Your task to perform on an android device: turn on notifications settings in the gmail app Image 0: 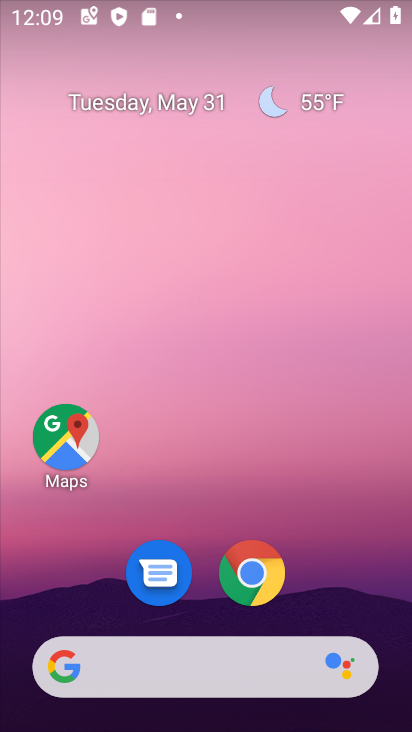
Step 0: drag from (196, 610) to (250, 0)
Your task to perform on an android device: turn on notifications settings in the gmail app Image 1: 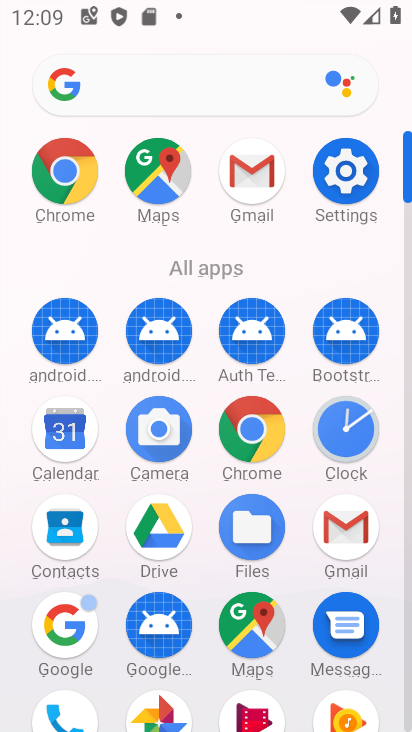
Step 1: click (335, 539)
Your task to perform on an android device: turn on notifications settings in the gmail app Image 2: 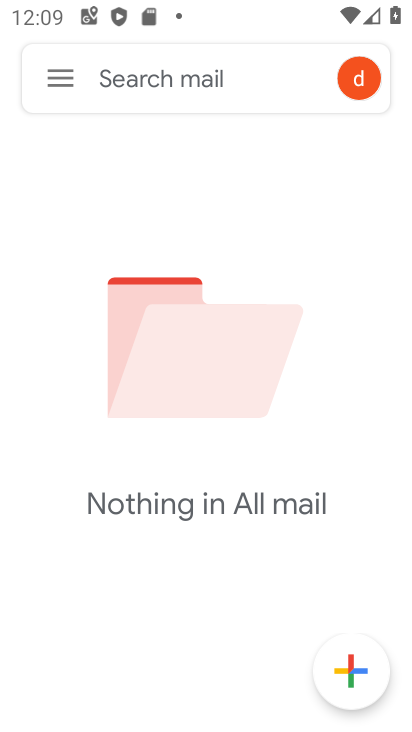
Step 2: click (64, 77)
Your task to perform on an android device: turn on notifications settings in the gmail app Image 3: 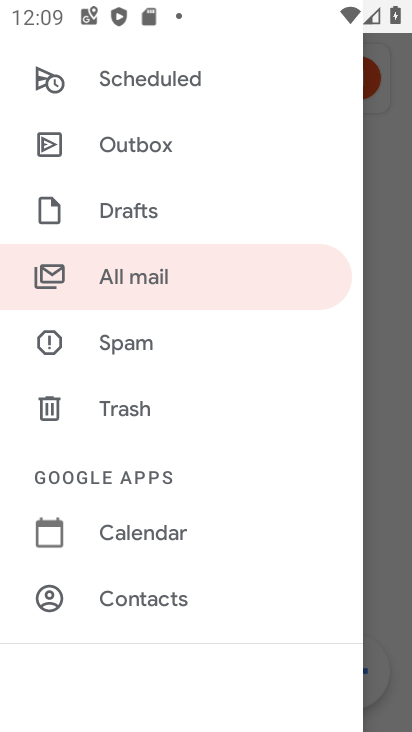
Step 3: drag from (169, 590) to (191, 204)
Your task to perform on an android device: turn on notifications settings in the gmail app Image 4: 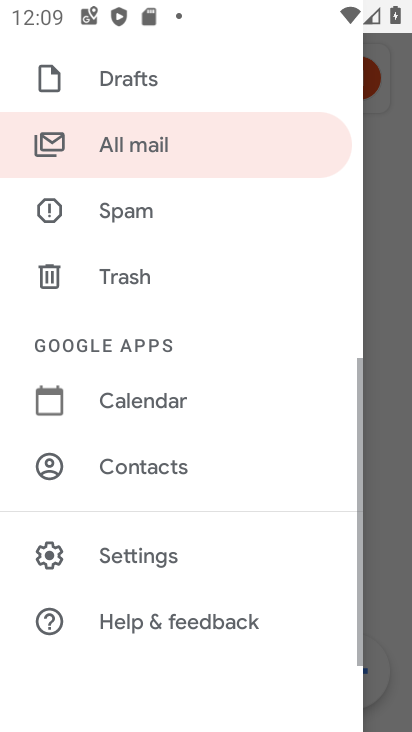
Step 4: click (135, 557)
Your task to perform on an android device: turn on notifications settings in the gmail app Image 5: 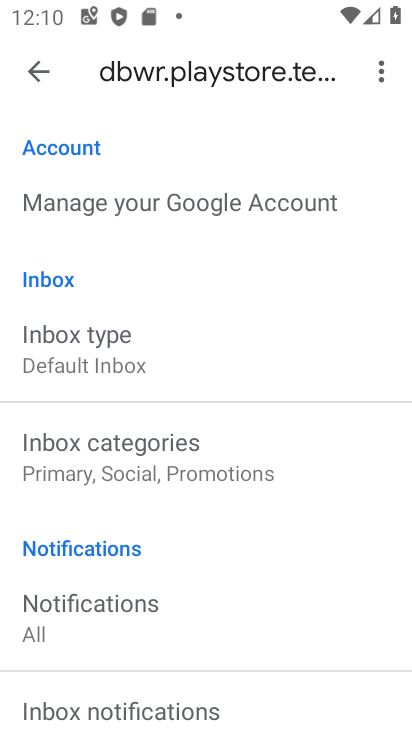
Step 5: drag from (124, 690) to (148, 259)
Your task to perform on an android device: turn on notifications settings in the gmail app Image 6: 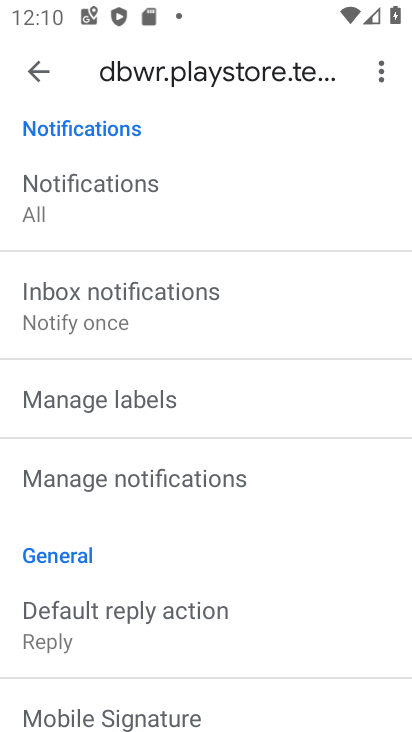
Step 6: drag from (119, 655) to (119, 274)
Your task to perform on an android device: turn on notifications settings in the gmail app Image 7: 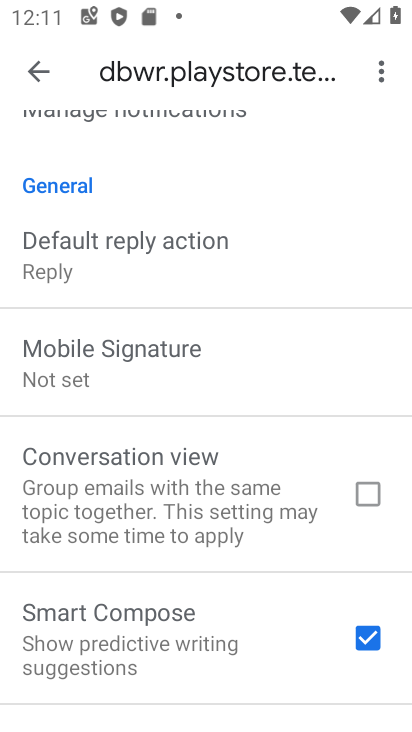
Step 7: drag from (113, 203) to (159, 351)
Your task to perform on an android device: turn on notifications settings in the gmail app Image 8: 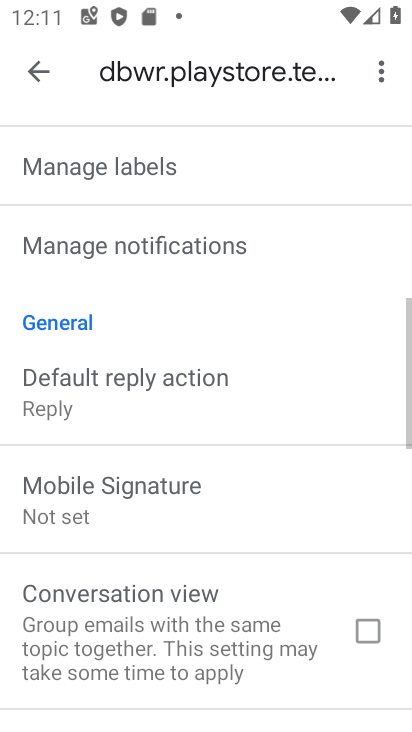
Step 8: click (120, 248)
Your task to perform on an android device: turn on notifications settings in the gmail app Image 9: 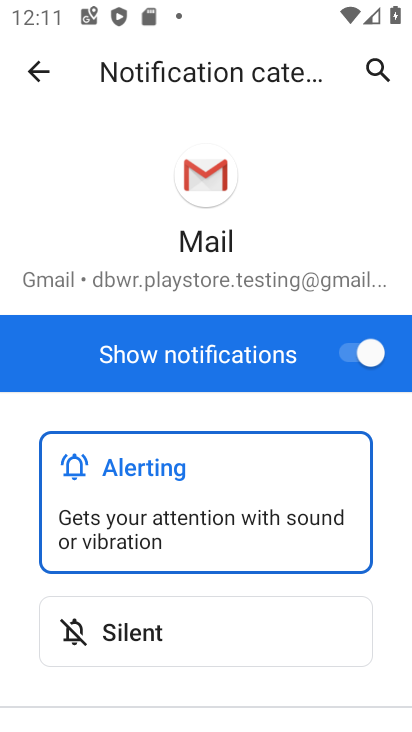
Step 9: task complete